Your task to perform on an android device: change keyboard looks Image 0: 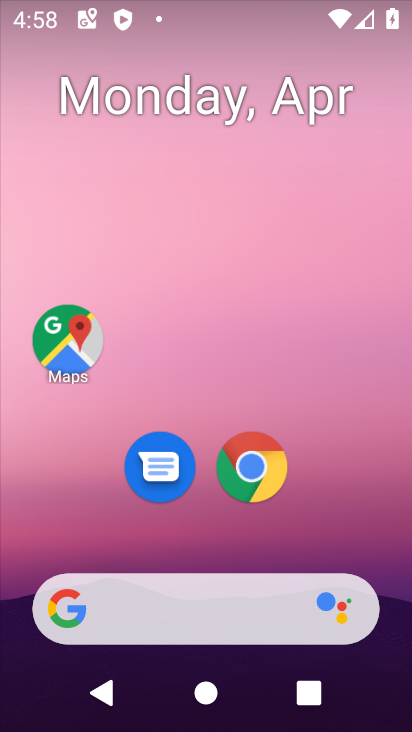
Step 0: drag from (214, 559) to (276, 44)
Your task to perform on an android device: change keyboard looks Image 1: 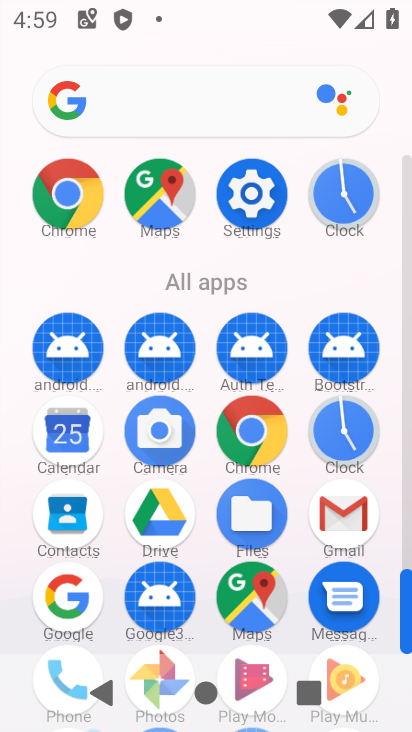
Step 1: click (233, 201)
Your task to perform on an android device: change keyboard looks Image 2: 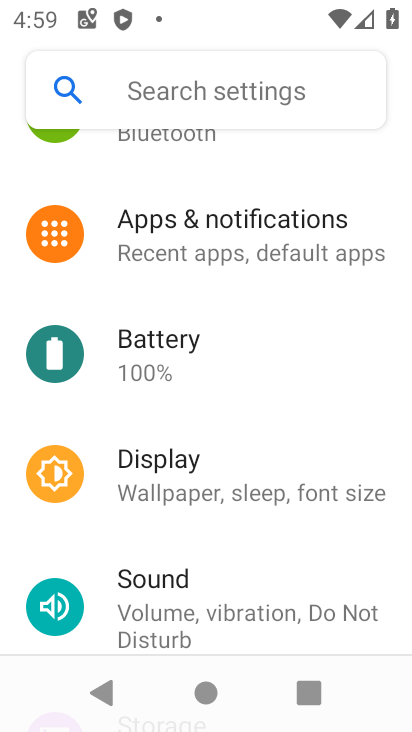
Step 2: drag from (274, 594) to (290, 84)
Your task to perform on an android device: change keyboard looks Image 3: 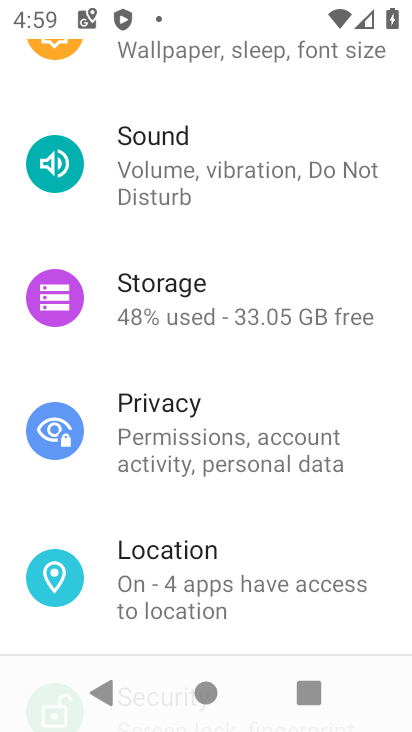
Step 3: drag from (250, 602) to (248, 68)
Your task to perform on an android device: change keyboard looks Image 4: 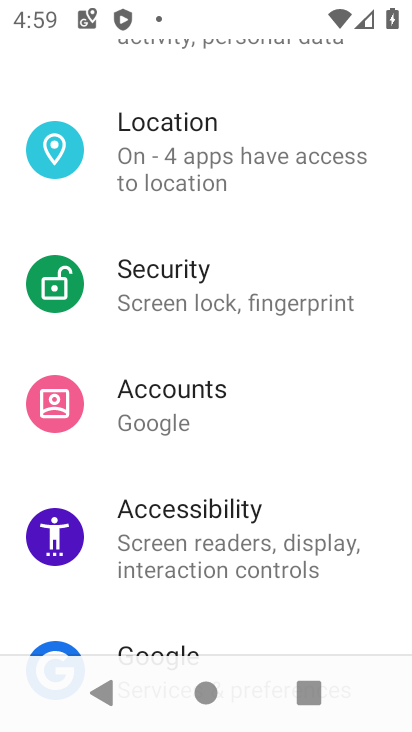
Step 4: drag from (216, 592) to (252, 150)
Your task to perform on an android device: change keyboard looks Image 5: 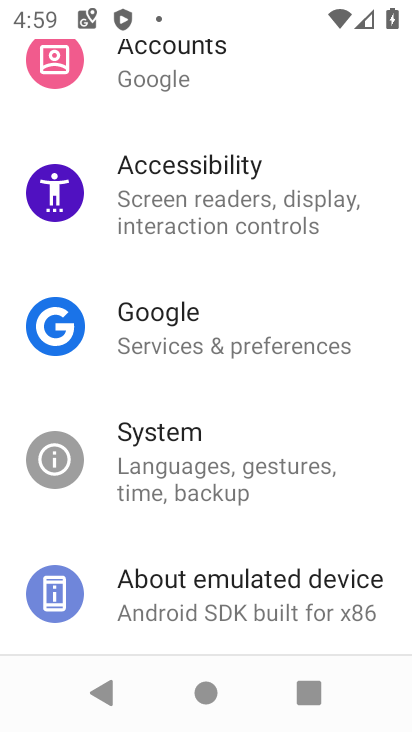
Step 5: click (253, 458)
Your task to perform on an android device: change keyboard looks Image 6: 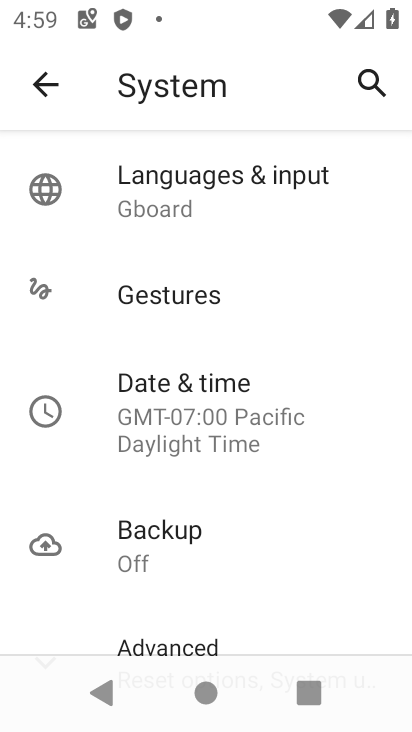
Step 6: click (223, 207)
Your task to perform on an android device: change keyboard looks Image 7: 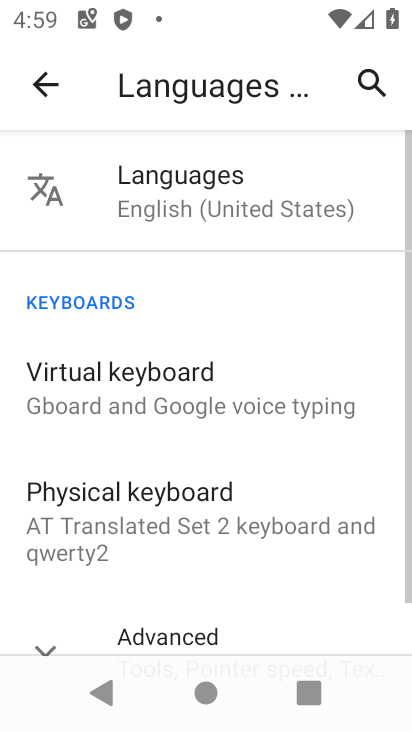
Step 7: click (197, 405)
Your task to perform on an android device: change keyboard looks Image 8: 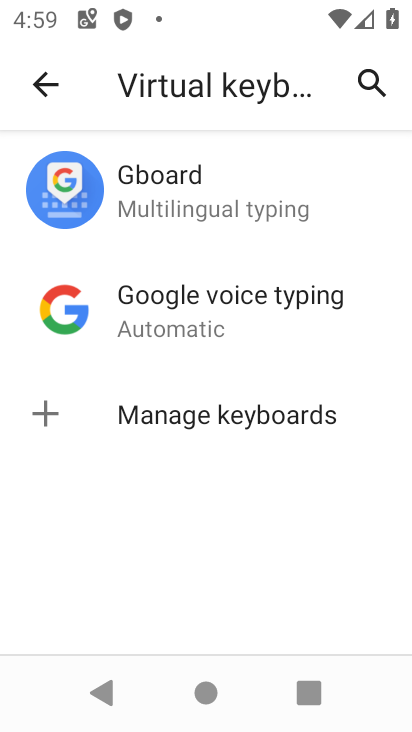
Step 8: click (195, 225)
Your task to perform on an android device: change keyboard looks Image 9: 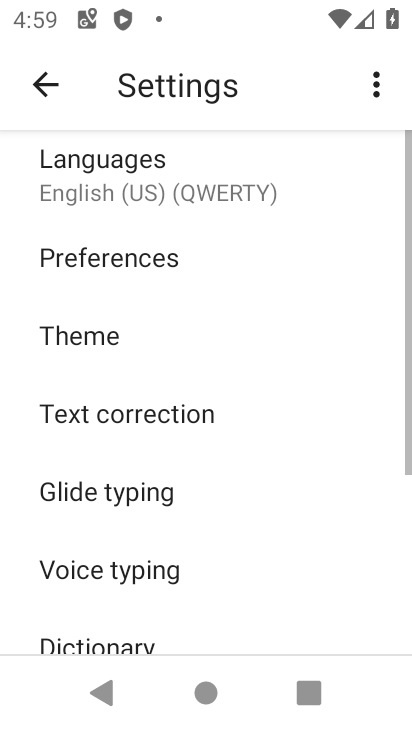
Step 9: click (116, 342)
Your task to perform on an android device: change keyboard looks Image 10: 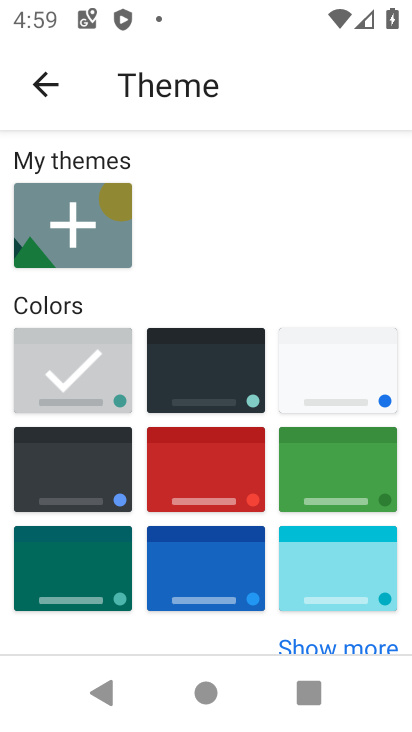
Step 10: click (353, 495)
Your task to perform on an android device: change keyboard looks Image 11: 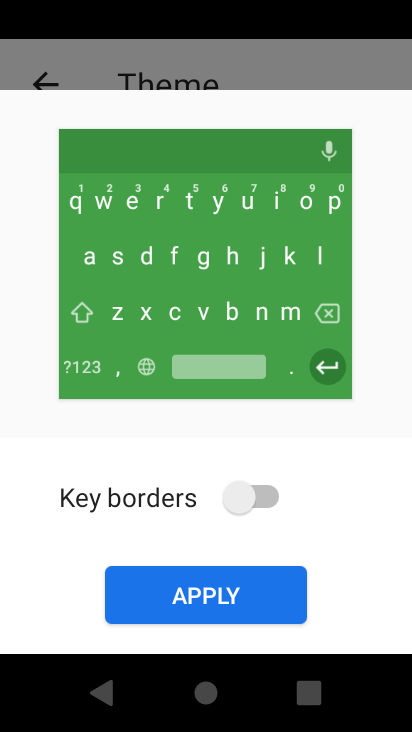
Step 11: click (257, 582)
Your task to perform on an android device: change keyboard looks Image 12: 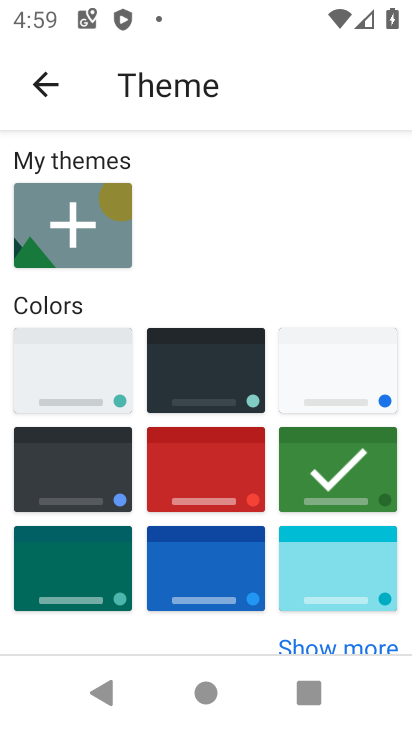
Step 12: task complete